Your task to perform on an android device: turn off location history Image 0: 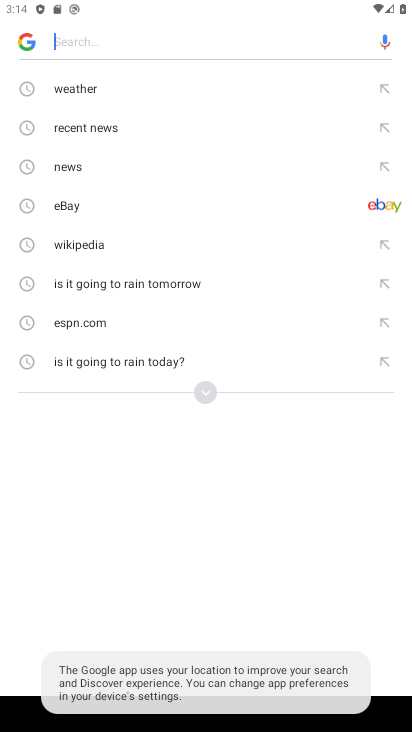
Step 0: press home button
Your task to perform on an android device: turn off location history Image 1: 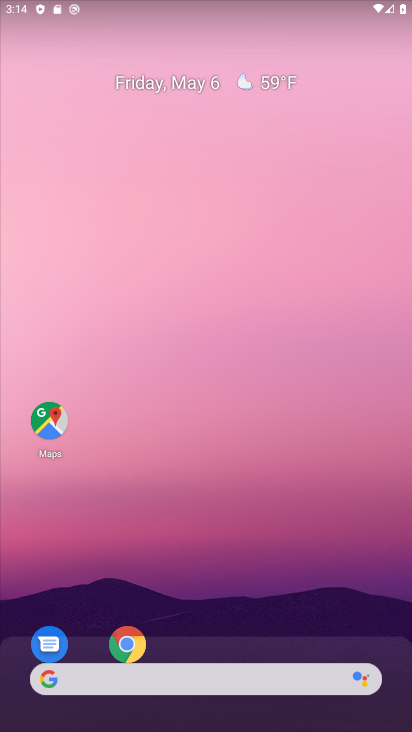
Step 1: drag from (229, 595) to (188, 18)
Your task to perform on an android device: turn off location history Image 2: 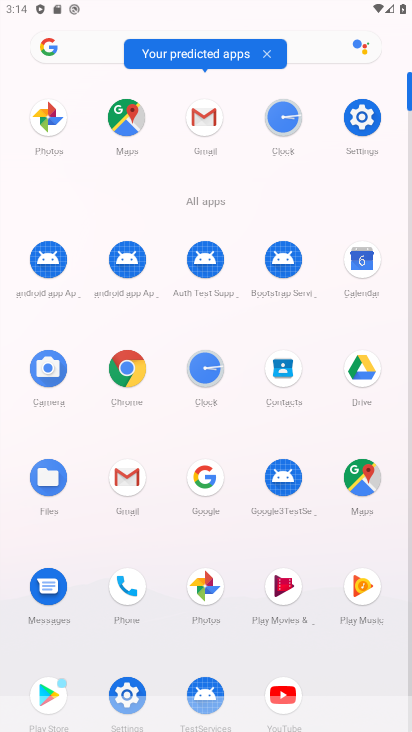
Step 2: click (362, 116)
Your task to perform on an android device: turn off location history Image 3: 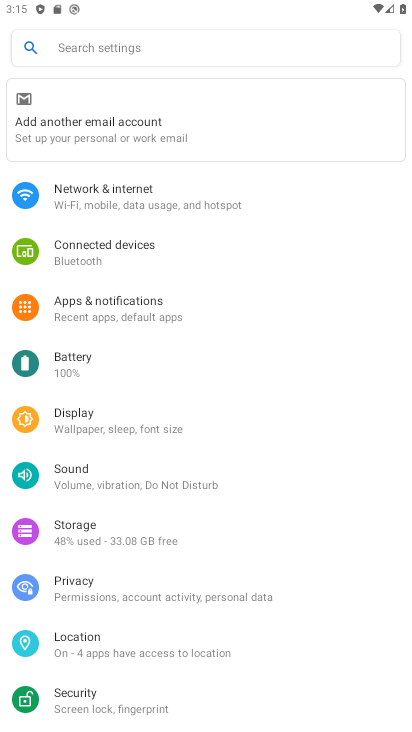
Step 3: drag from (119, 508) to (154, 422)
Your task to perform on an android device: turn off location history Image 4: 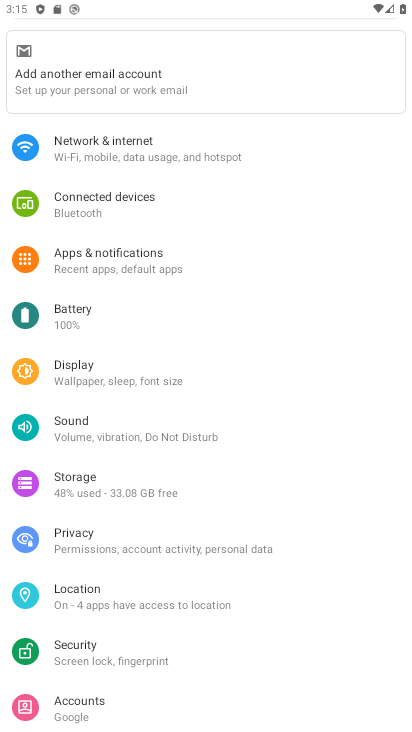
Step 4: click (92, 598)
Your task to perform on an android device: turn off location history Image 5: 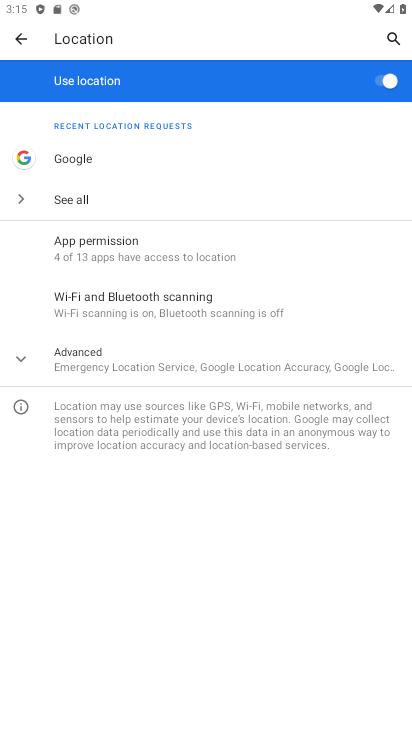
Step 5: click (127, 356)
Your task to perform on an android device: turn off location history Image 6: 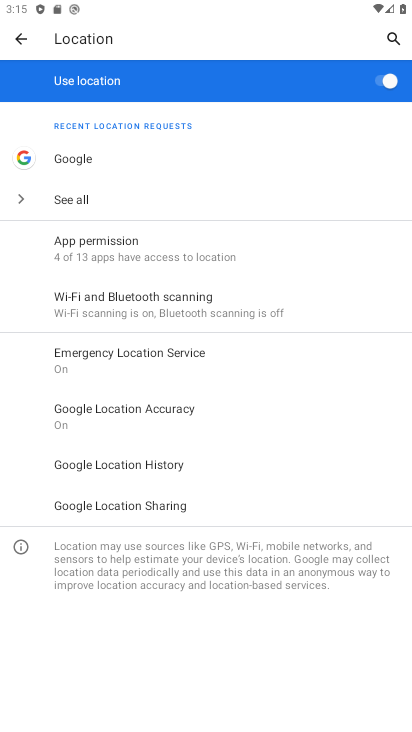
Step 6: click (141, 463)
Your task to perform on an android device: turn off location history Image 7: 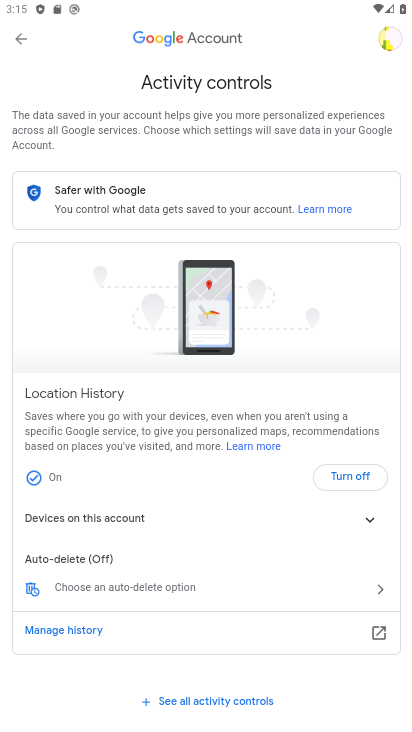
Step 7: click (344, 474)
Your task to perform on an android device: turn off location history Image 8: 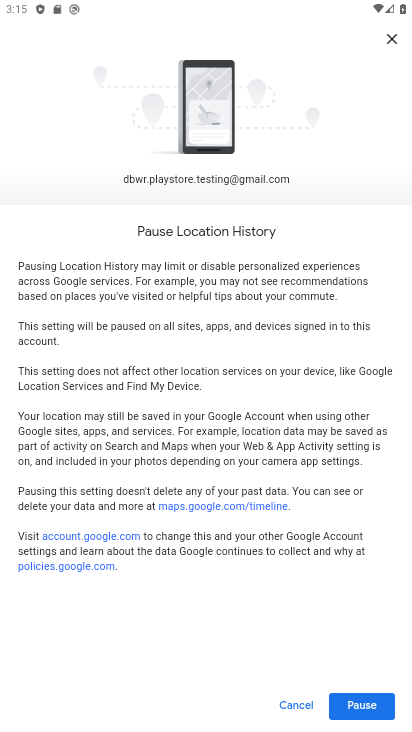
Step 8: click (363, 705)
Your task to perform on an android device: turn off location history Image 9: 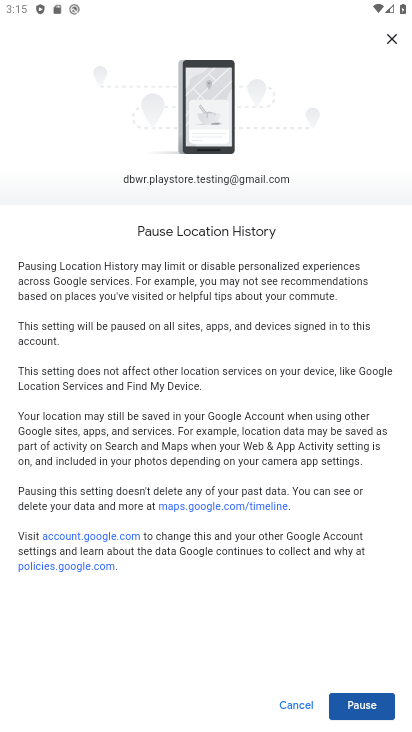
Step 9: click (363, 705)
Your task to perform on an android device: turn off location history Image 10: 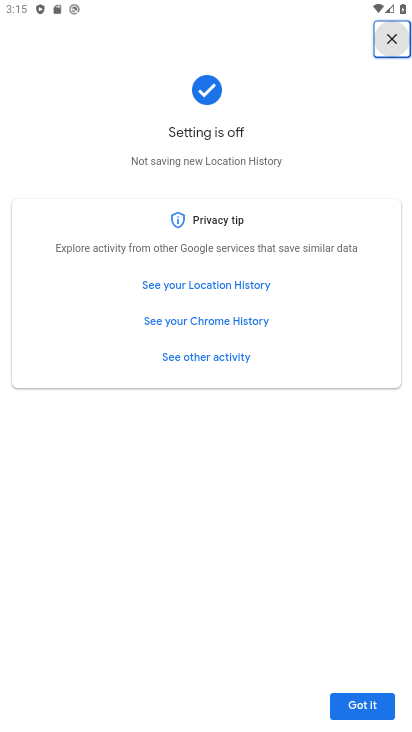
Step 10: task complete